Your task to perform on an android device: Open Wikipedia Image 0: 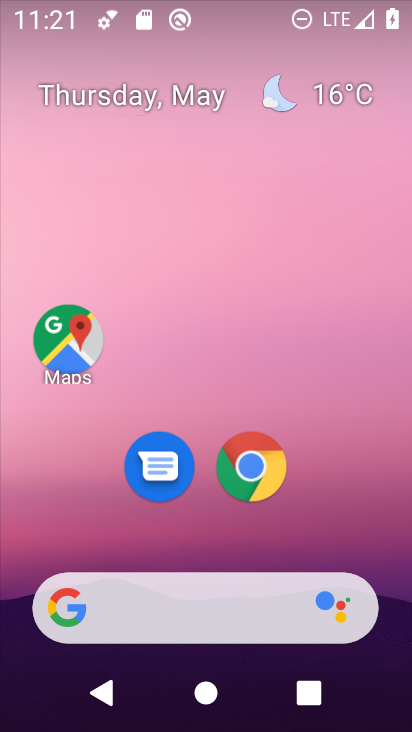
Step 0: click (263, 450)
Your task to perform on an android device: Open Wikipedia Image 1: 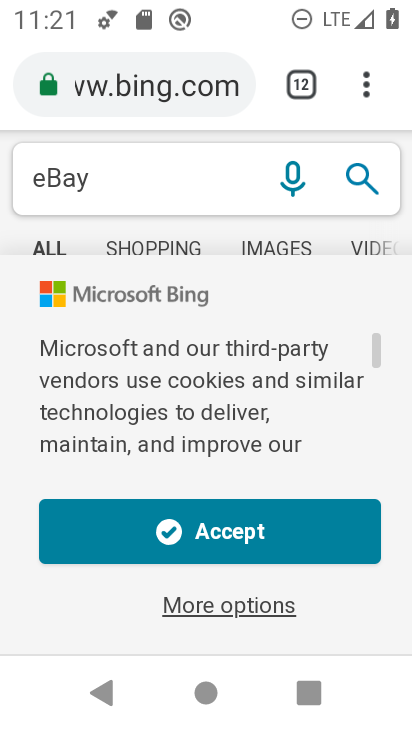
Step 1: click (379, 66)
Your task to perform on an android device: Open Wikipedia Image 2: 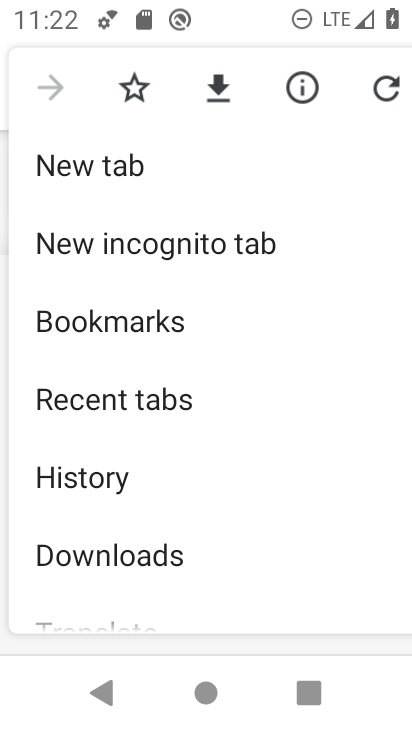
Step 2: click (85, 157)
Your task to perform on an android device: Open Wikipedia Image 3: 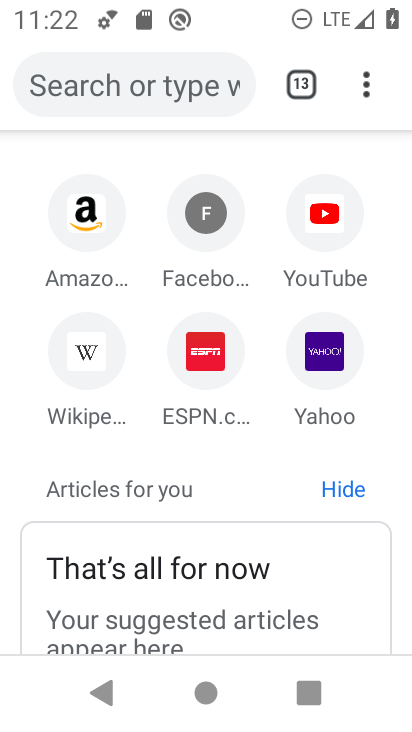
Step 3: click (96, 335)
Your task to perform on an android device: Open Wikipedia Image 4: 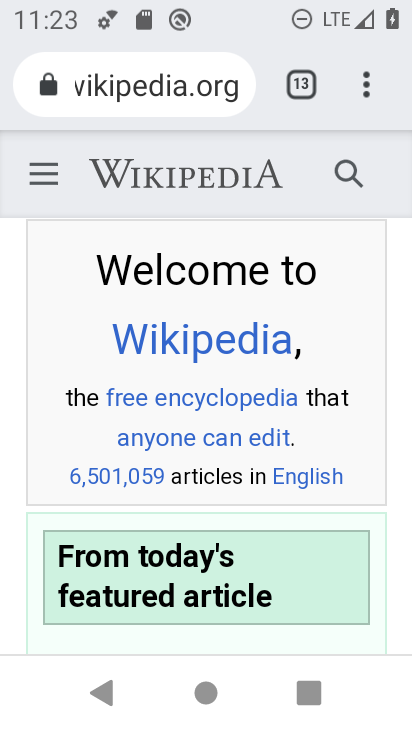
Step 4: task complete